Your task to perform on an android device: Do I have any events today? Image 0: 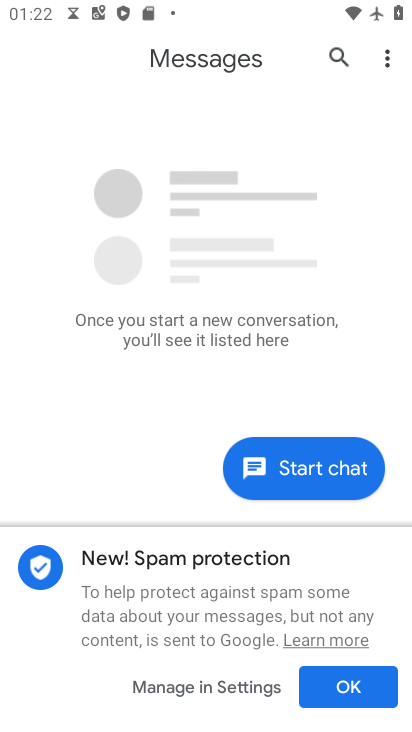
Step 0: press home button
Your task to perform on an android device: Do I have any events today? Image 1: 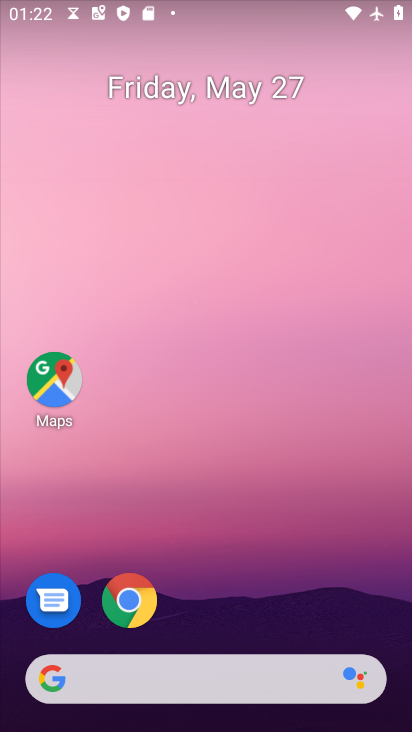
Step 1: drag from (271, 589) to (254, 342)
Your task to perform on an android device: Do I have any events today? Image 2: 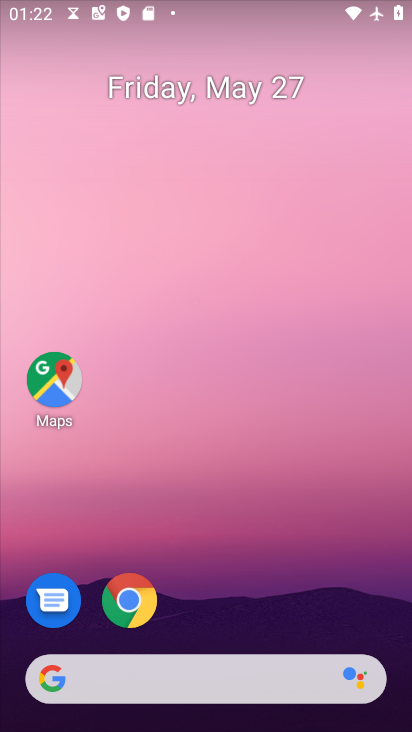
Step 2: drag from (239, 373) to (190, 47)
Your task to perform on an android device: Do I have any events today? Image 3: 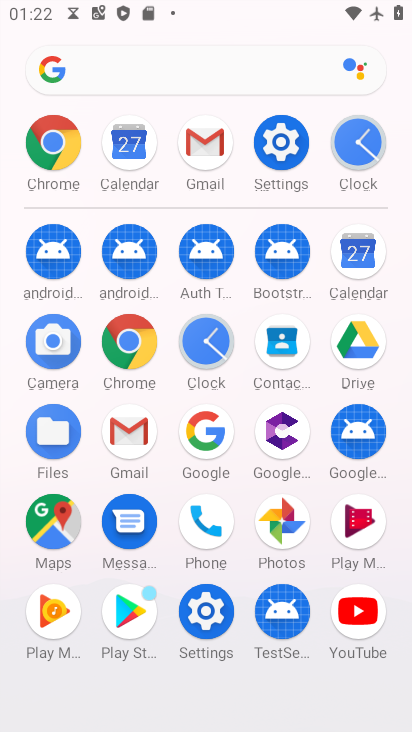
Step 3: click (350, 256)
Your task to perform on an android device: Do I have any events today? Image 4: 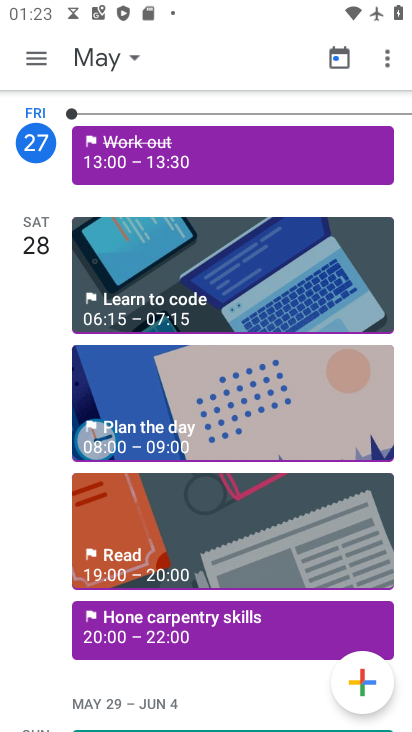
Step 4: task complete